Your task to perform on an android device: Go to battery settings Image 0: 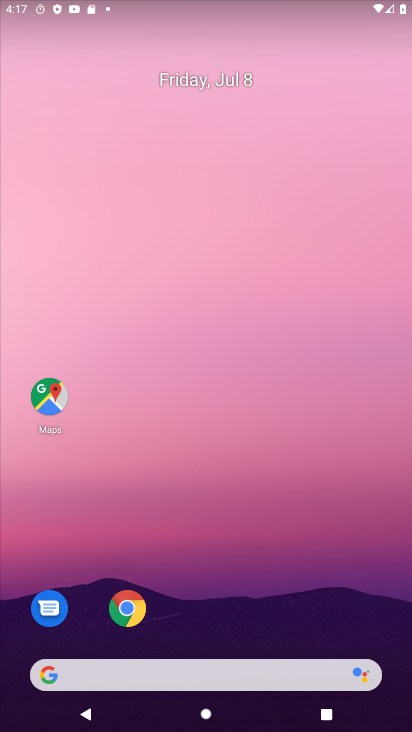
Step 0: press home button
Your task to perform on an android device: Go to battery settings Image 1: 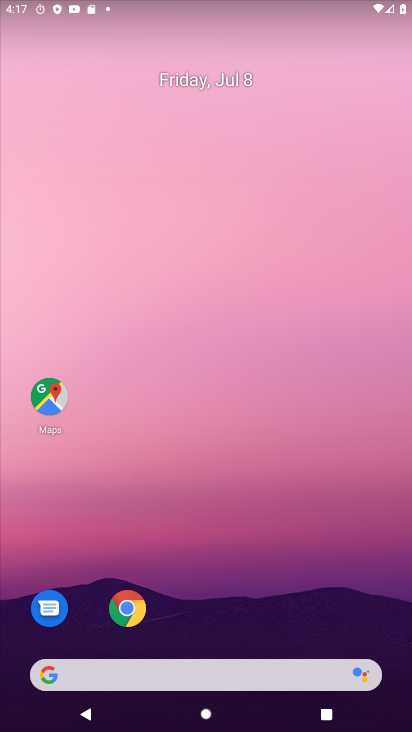
Step 1: press home button
Your task to perform on an android device: Go to battery settings Image 2: 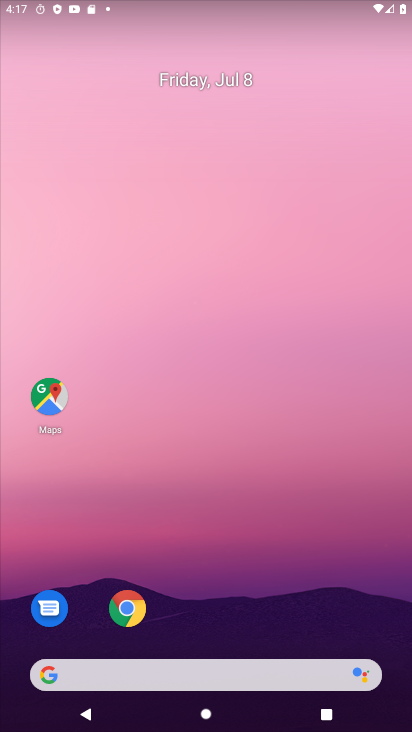
Step 2: press home button
Your task to perform on an android device: Go to battery settings Image 3: 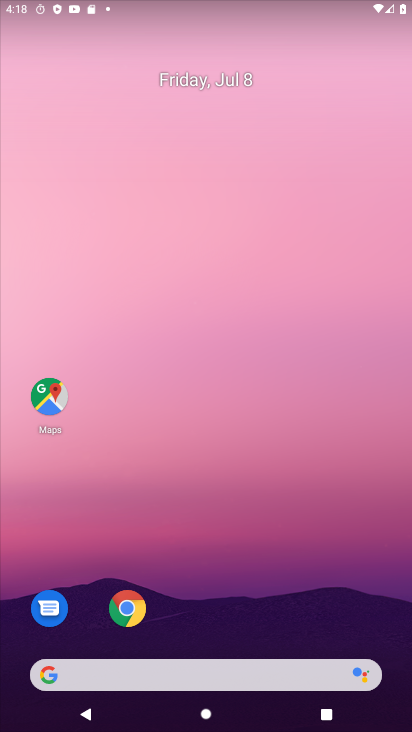
Step 3: drag from (281, 541) to (250, 3)
Your task to perform on an android device: Go to battery settings Image 4: 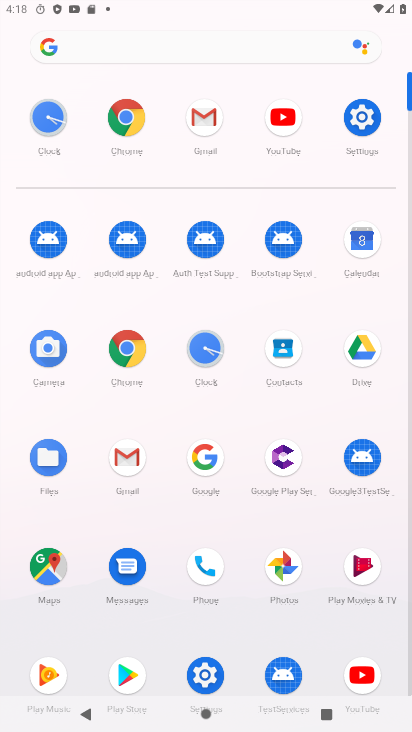
Step 4: click (346, 114)
Your task to perform on an android device: Go to battery settings Image 5: 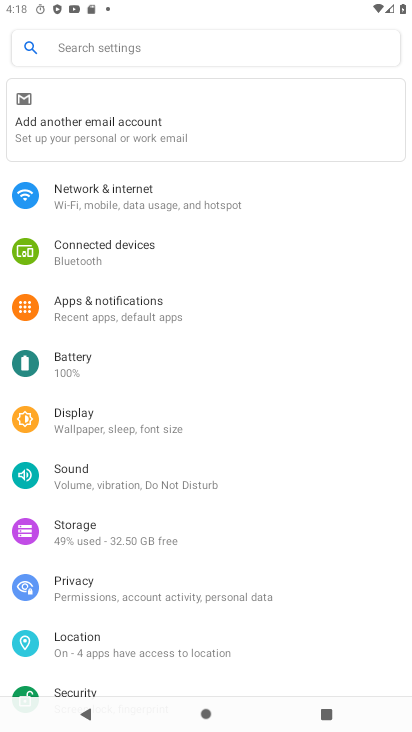
Step 5: click (93, 356)
Your task to perform on an android device: Go to battery settings Image 6: 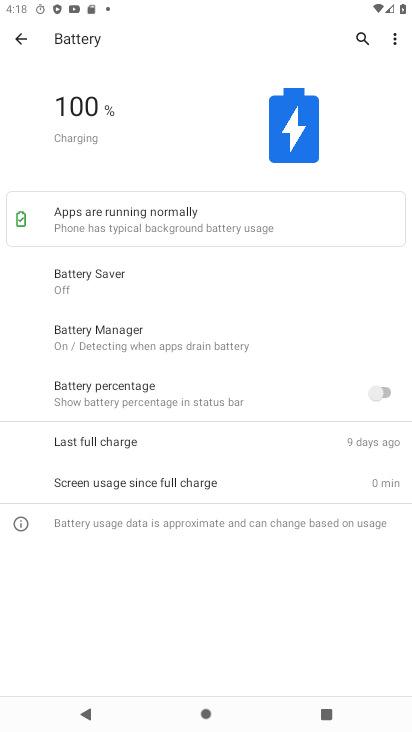
Step 6: task complete